Your task to perform on an android device: toggle priority inbox in the gmail app Image 0: 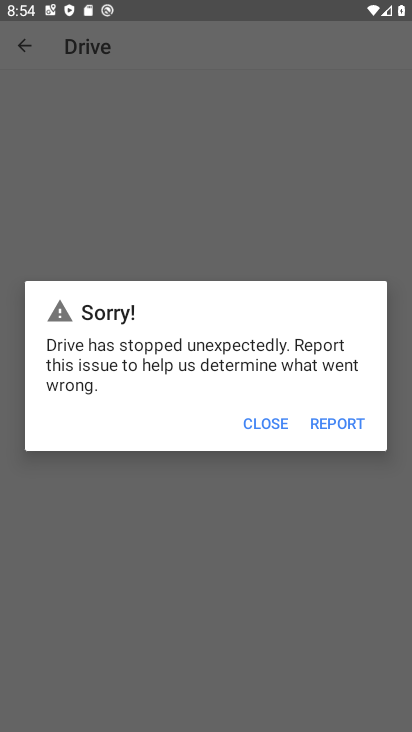
Step 0: press home button
Your task to perform on an android device: toggle priority inbox in the gmail app Image 1: 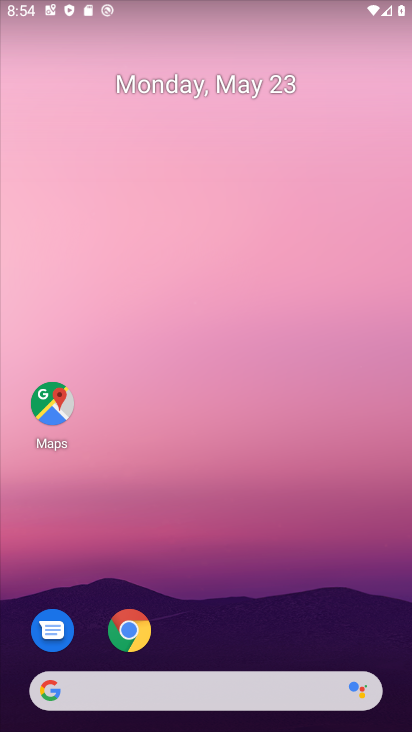
Step 1: drag from (197, 669) to (236, 197)
Your task to perform on an android device: toggle priority inbox in the gmail app Image 2: 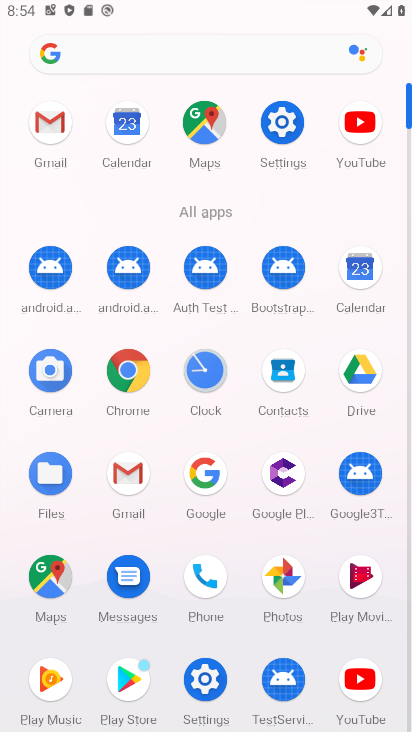
Step 2: click (38, 127)
Your task to perform on an android device: toggle priority inbox in the gmail app Image 3: 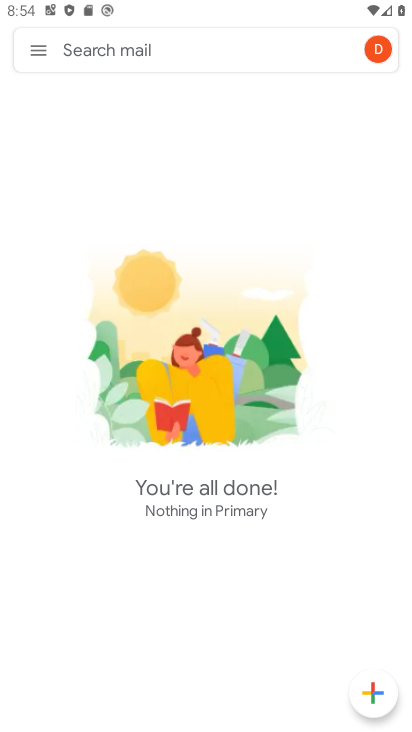
Step 3: click (37, 53)
Your task to perform on an android device: toggle priority inbox in the gmail app Image 4: 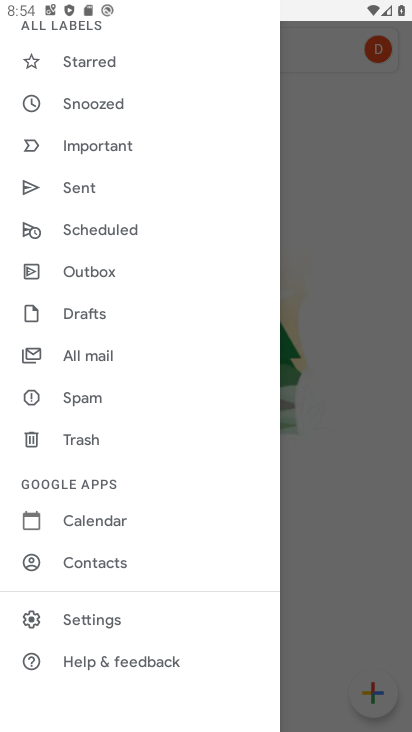
Step 4: click (81, 618)
Your task to perform on an android device: toggle priority inbox in the gmail app Image 5: 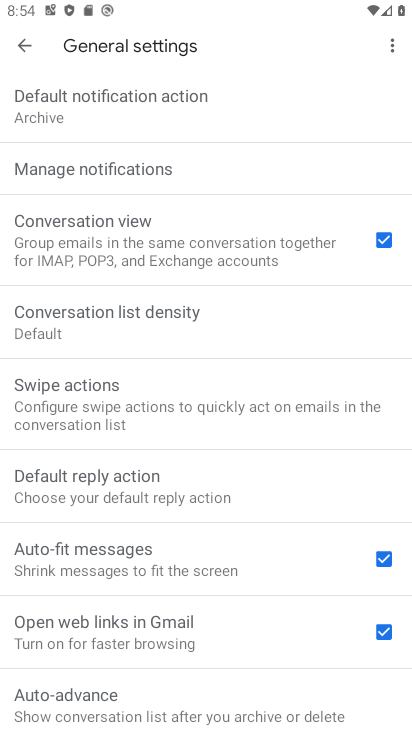
Step 5: click (22, 39)
Your task to perform on an android device: toggle priority inbox in the gmail app Image 6: 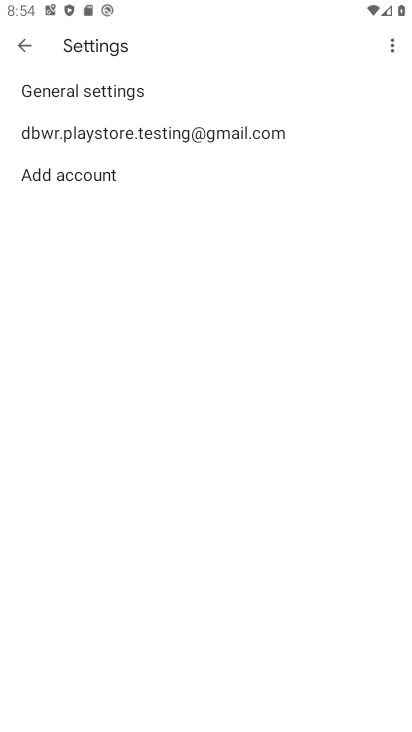
Step 6: click (72, 129)
Your task to perform on an android device: toggle priority inbox in the gmail app Image 7: 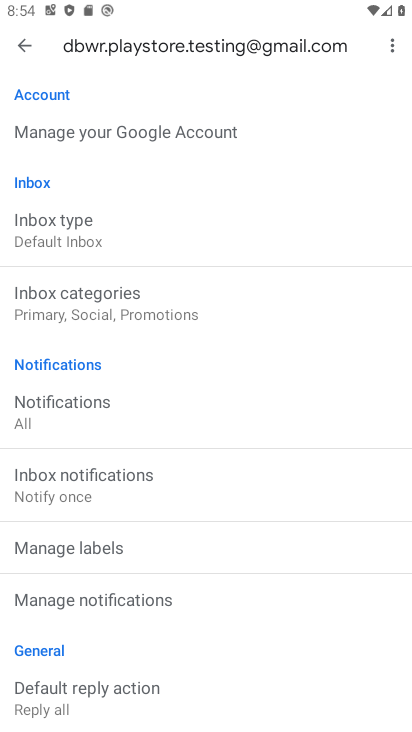
Step 7: click (50, 234)
Your task to perform on an android device: toggle priority inbox in the gmail app Image 8: 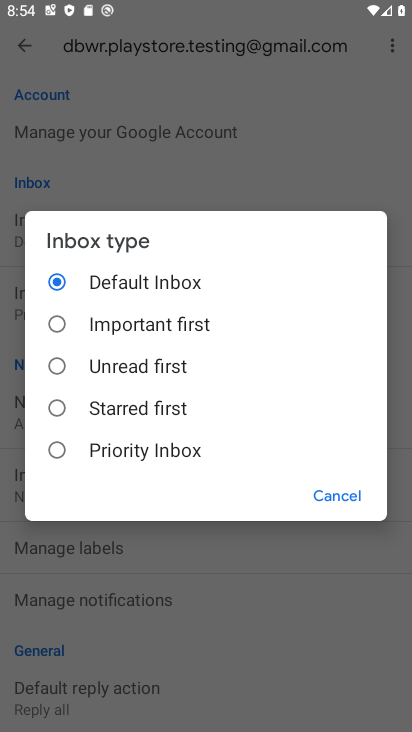
Step 8: click (114, 452)
Your task to perform on an android device: toggle priority inbox in the gmail app Image 9: 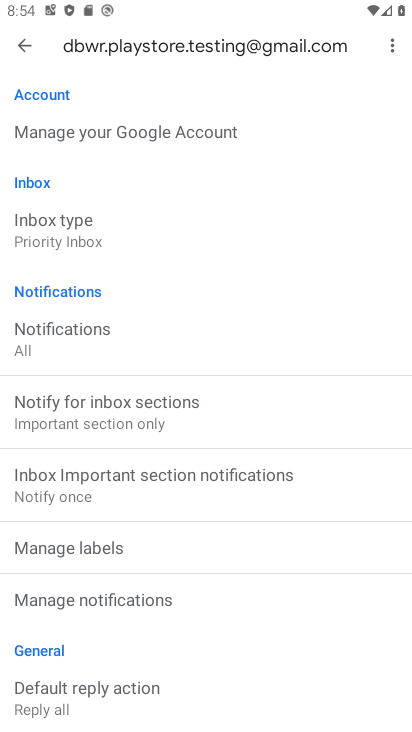
Step 9: task complete